Your task to perform on an android device: check out phone information Image 0: 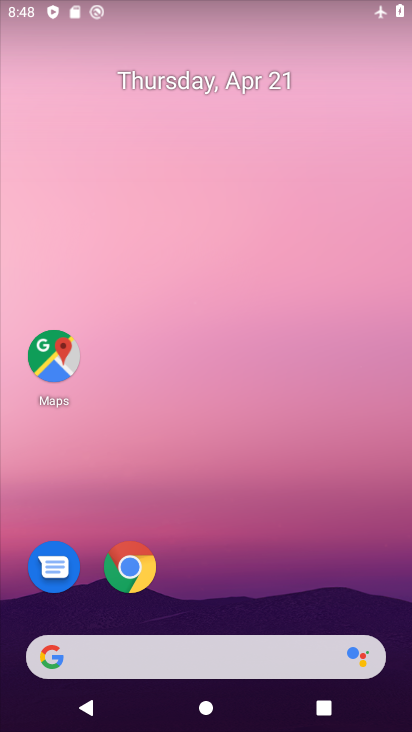
Step 0: drag from (357, 604) to (312, 125)
Your task to perform on an android device: check out phone information Image 1: 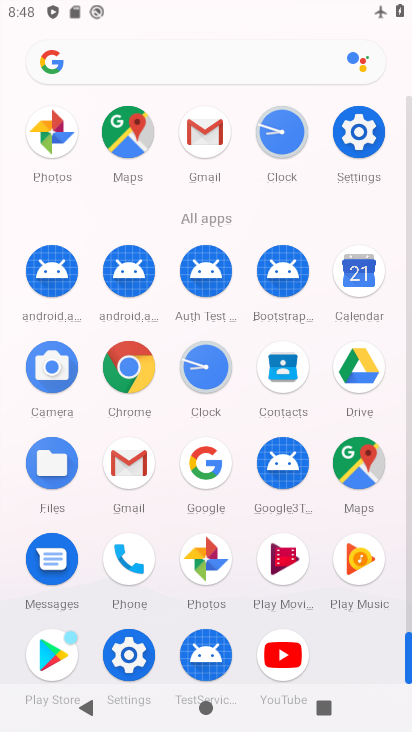
Step 1: click (132, 654)
Your task to perform on an android device: check out phone information Image 2: 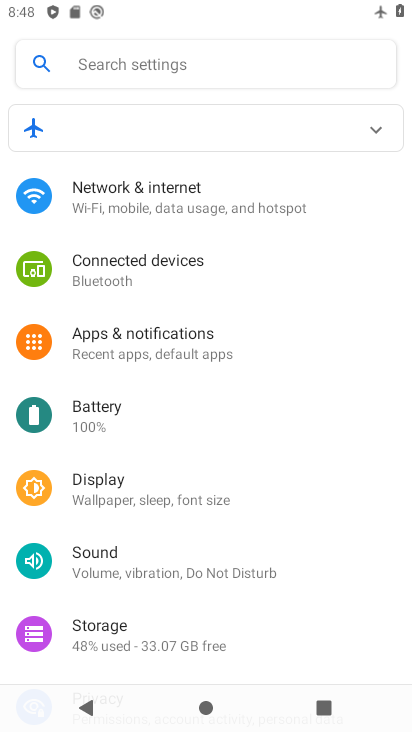
Step 2: drag from (300, 578) to (298, 374)
Your task to perform on an android device: check out phone information Image 3: 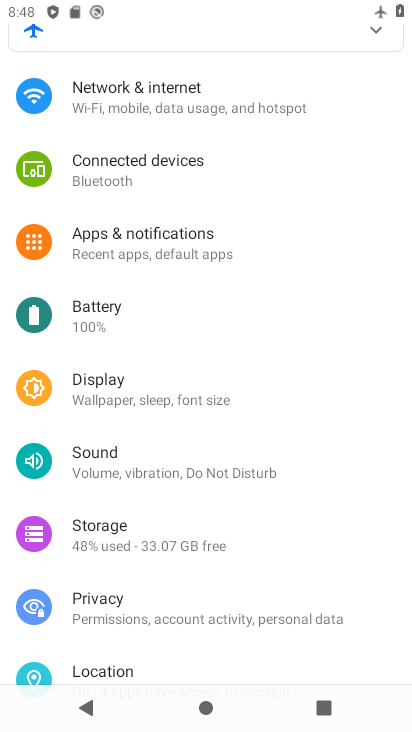
Step 3: drag from (237, 565) to (270, 208)
Your task to perform on an android device: check out phone information Image 4: 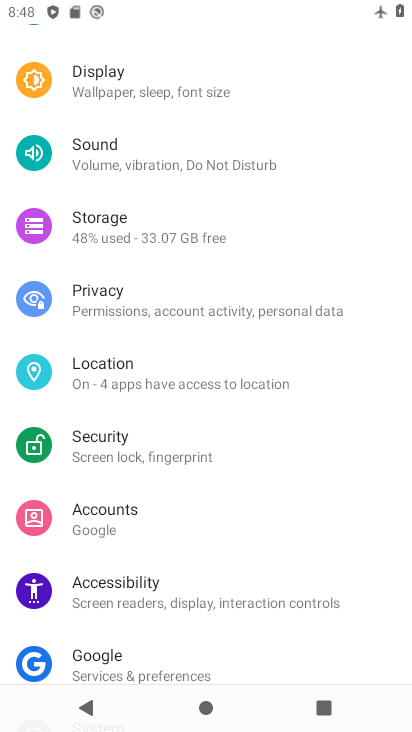
Step 4: drag from (255, 622) to (238, 254)
Your task to perform on an android device: check out phone information Image 5: 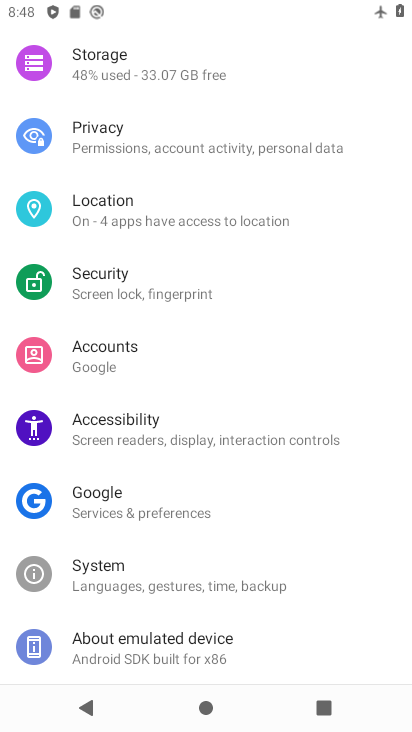
Step 5: drag from (171, 568) to (182, 347)
Your task to perform on an android device: check out phone information Image 6: 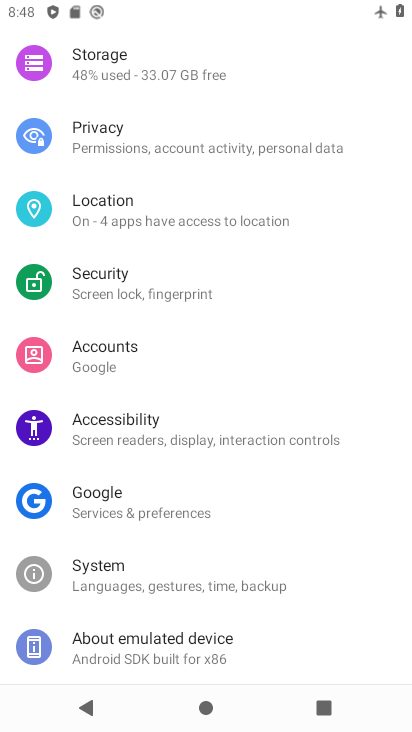
Step 6: click (136, 648)
Your task to perform on an android device: check out phone information Image 7: 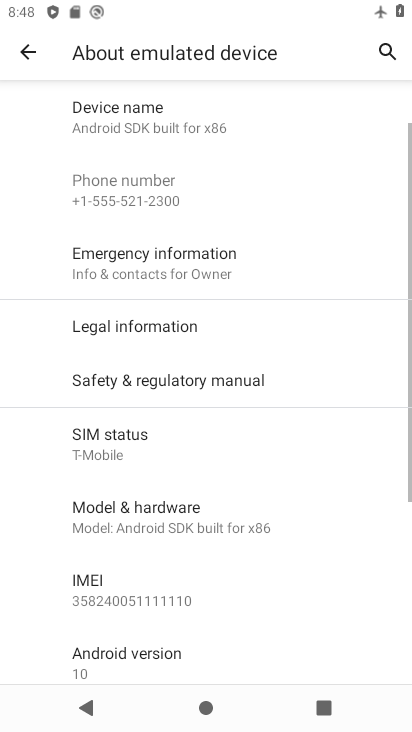
Step 7: task complete